Your task to perform on an android device: turn on data saver in the chrome app Image 0: 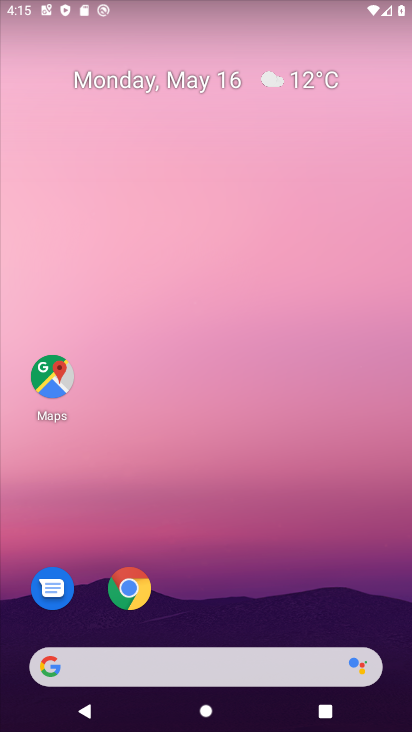
Step 0: click (137, 592)
Your task to perform on an android device: turn on data saver in the chrome app Image 1: 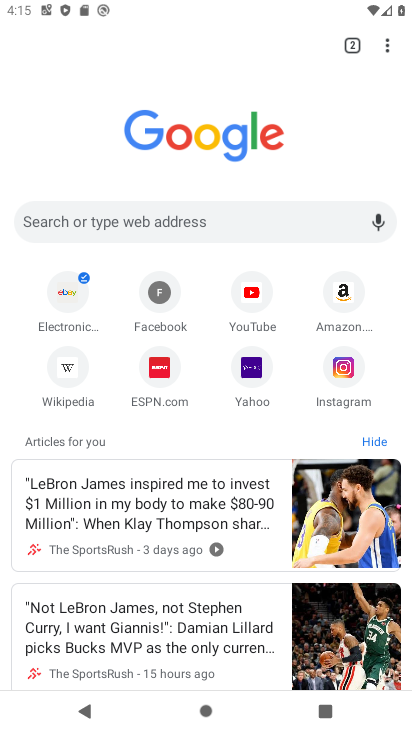
Step 1: click (386, 43)
Your task to perform on an android device: turn on data saver in the chrome app Image 2: 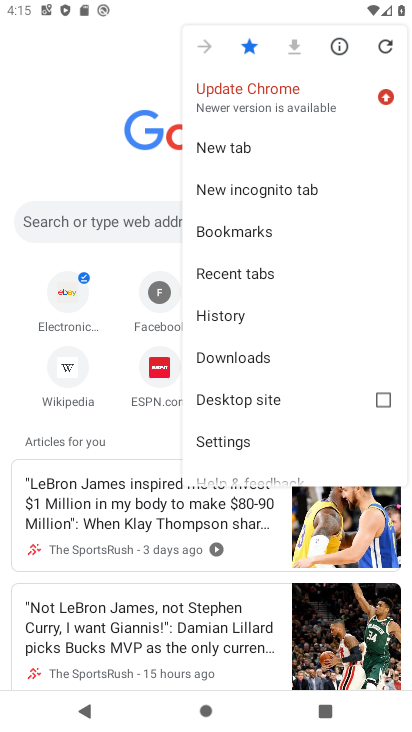
Step 2: click (220, 439)
Your task to perform on an android device: turn on data saver in the chrome app Image 3: 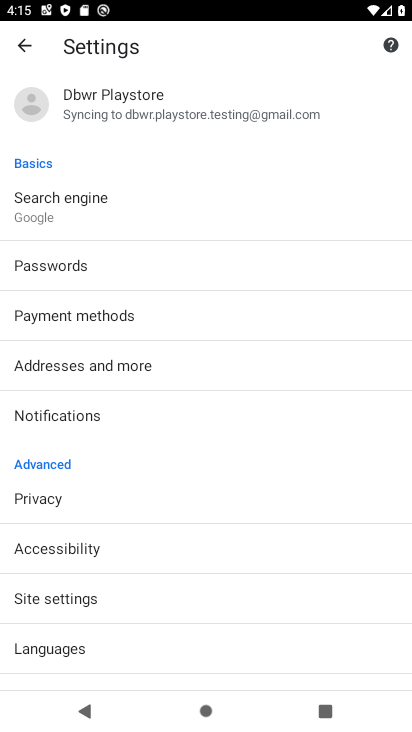
Step 3: drag from (143, 659) to (160, 330)
Your task to perform on an android device: turn on data saver in the chrome app Image 4: 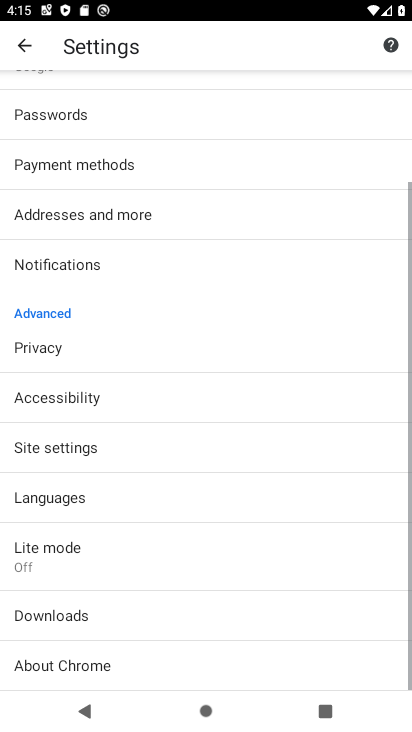
Step 4: click (66, 572)
Your task to perform on an android device: turn on data saver in the chrome app Image 5: 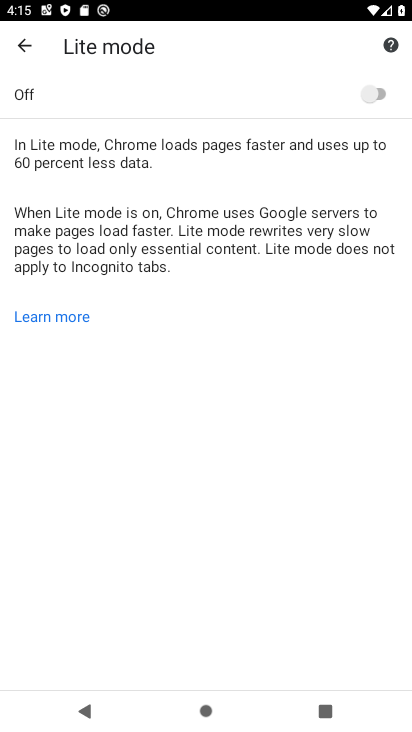
Step 5: click (382, 95)
Your task to perform on an android device: turn on data saver in the chrome app Image 6: 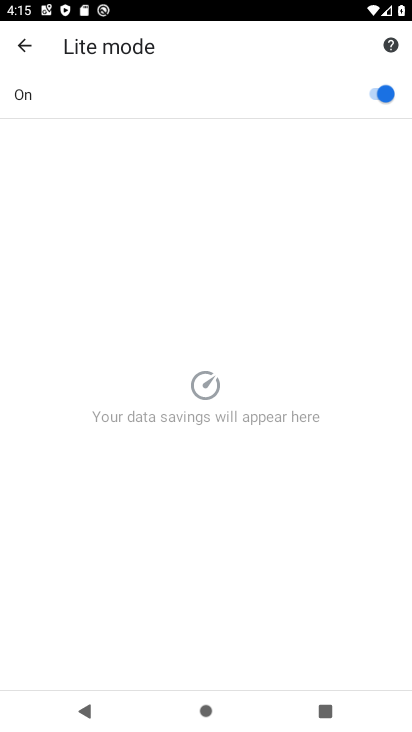
Step 6: task complete